Your task to perform on an android device: Go to battery settings Image 0: 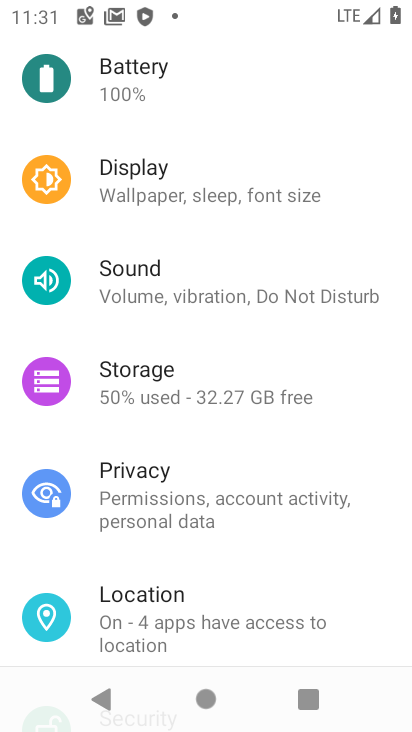
Step 0: click (159, 55)
Your task to perform on an android device: Go to battery settings Image 1: 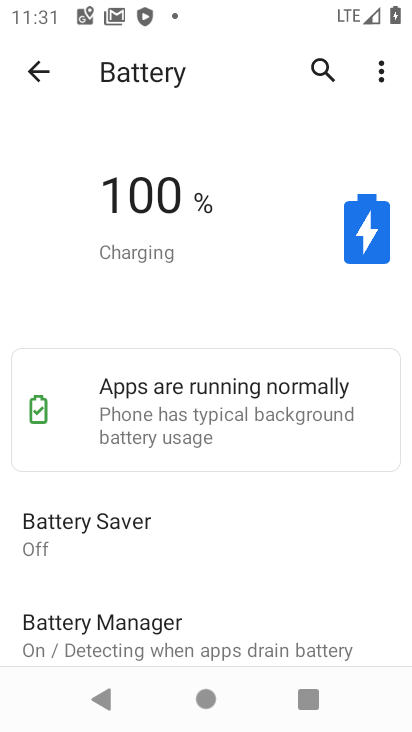
Step 1: task complete